Your task to perform on an android device: Go to Android settings Image 0: 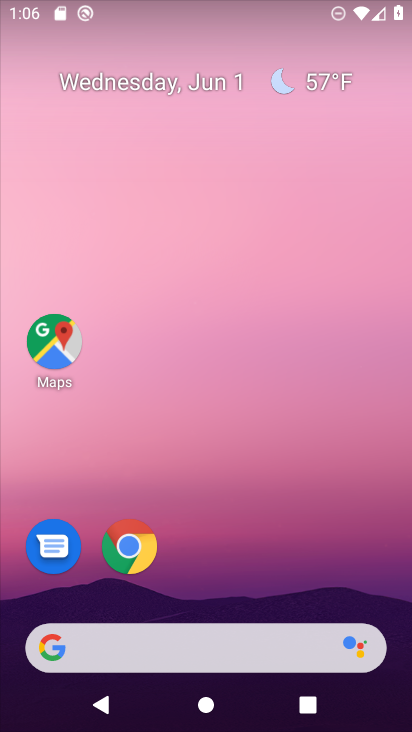
Step 0: drag from (197, 618) to (395, 414)
Your task to perform on an android device: Go to Android settings Image 1: 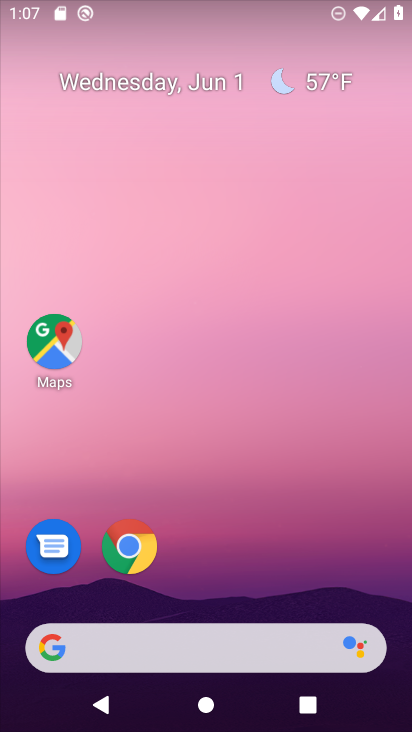
Step 1: drag from (185, 297) to (408, 687)
Your task to perform on an android device: Go to Android settings Image 2: 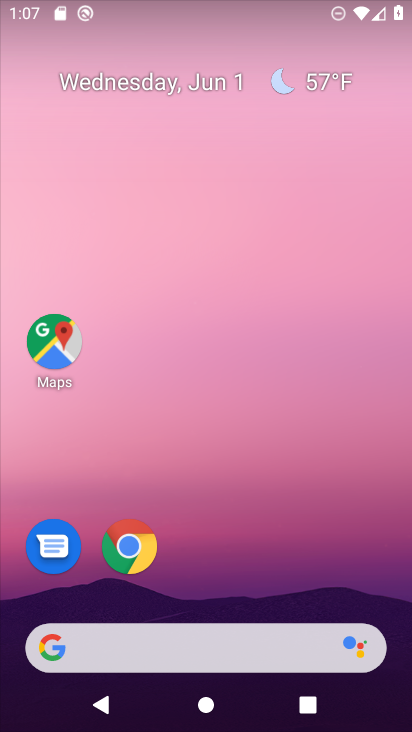
Step 2: drag from (255, 618) to (271, 4)
Your task to perform on an android device: Go to Android settings Image 3: 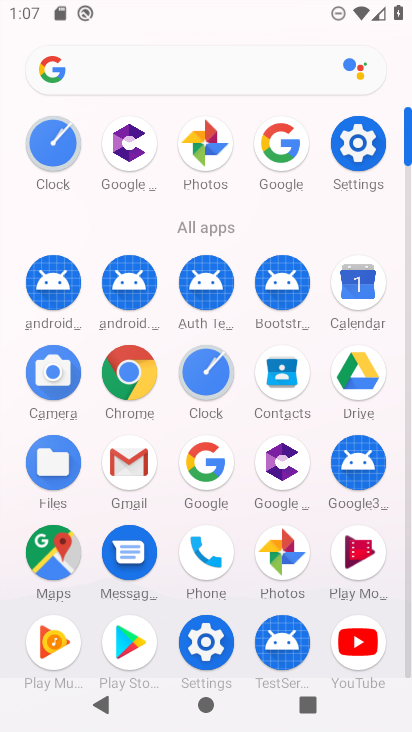
Step 3: click (348, 131)
Your task to perform on an android device: Go to Android settings Image 4: 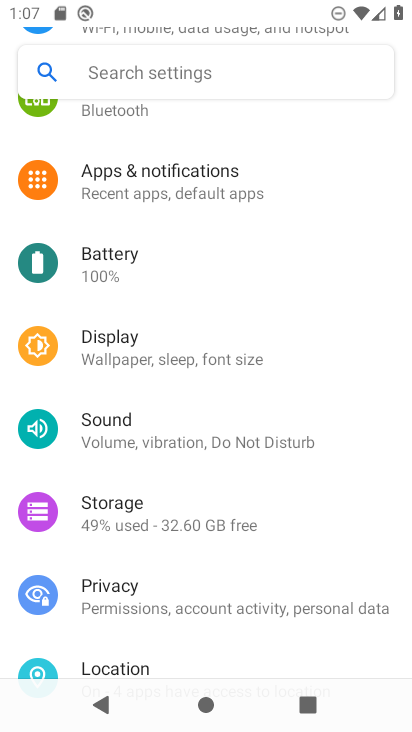
Step 4: task complete